Your task to perform on an android device: Go to battery settings Image 0: 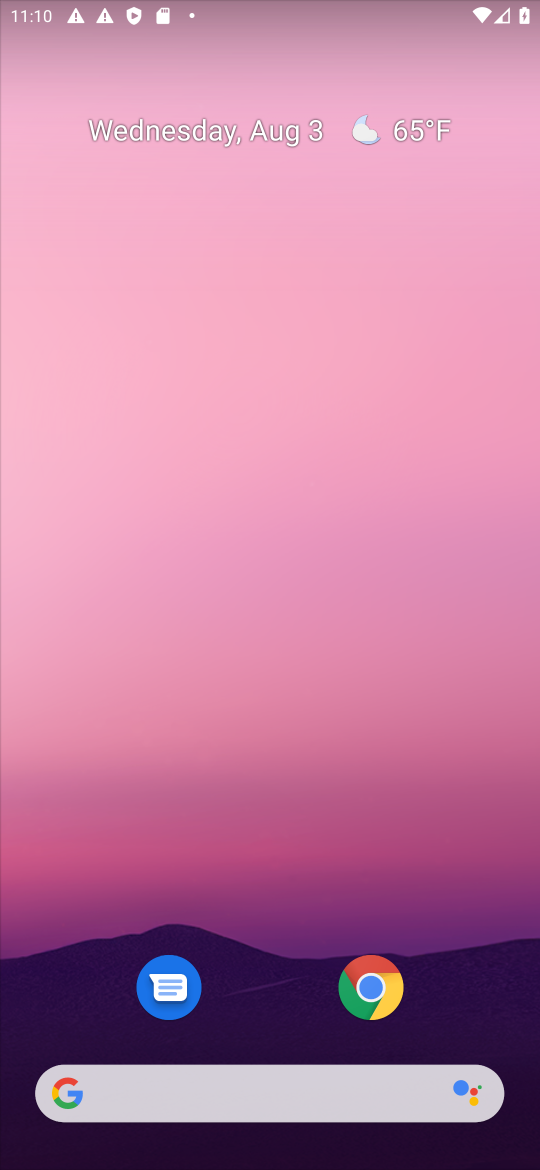
Step 0: drag from (317, 1044) to (323, 391)
Your task to perform on an android device: Go to battery settings Image 1: 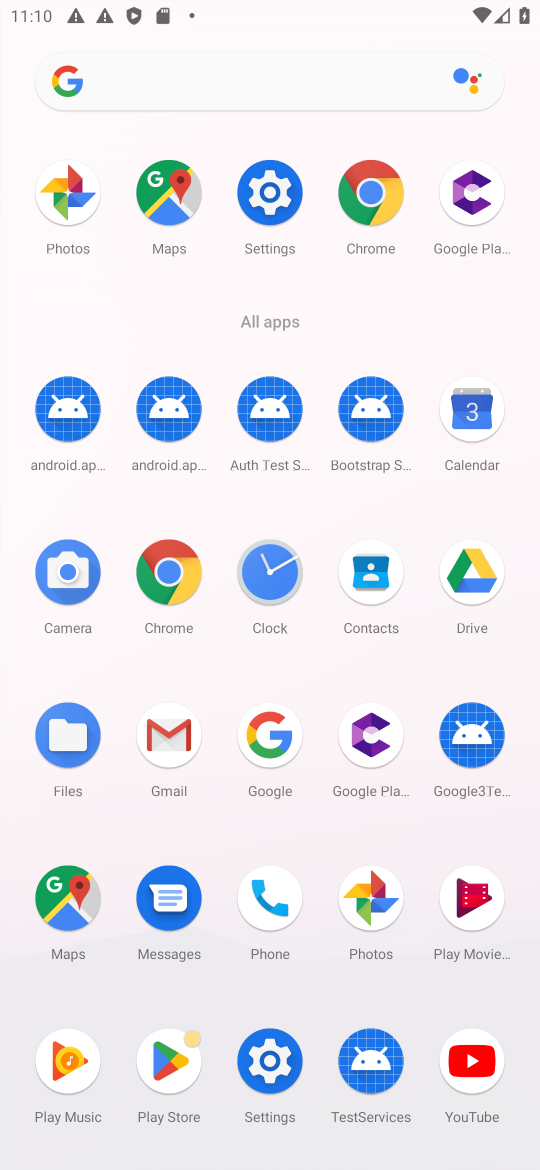
Step 1: click (273, 207)
Your task to perform on an android device: Go to battery settings Image 2: 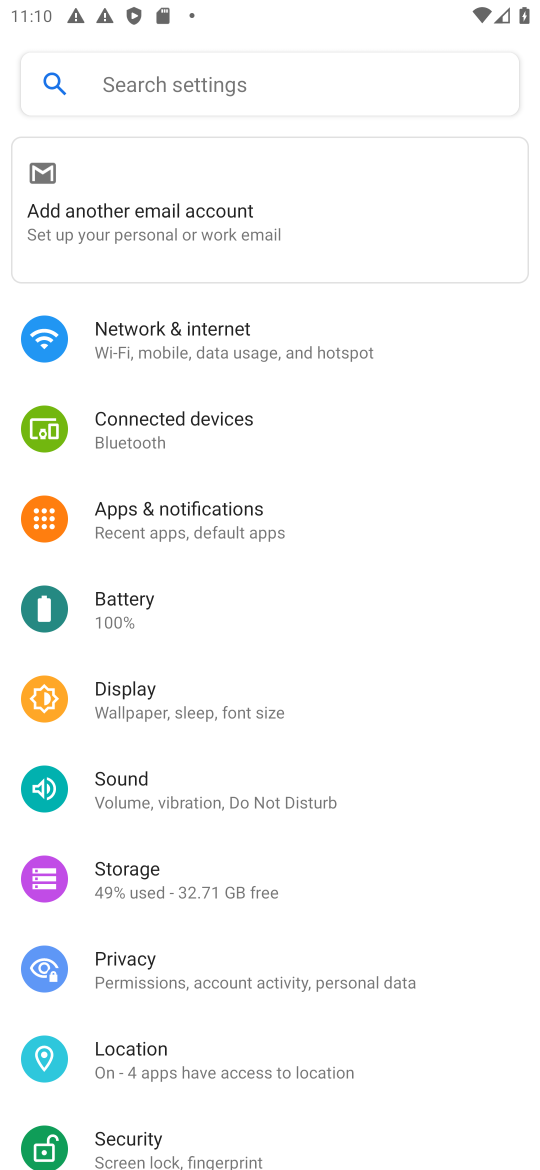
Step 2: task complete